Your task to perform on an android device: check out phone information Image 0: 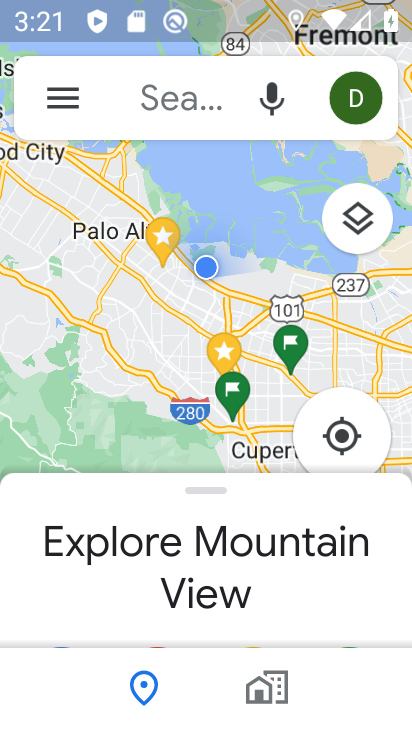
Step 0: press home button
Your task to perform on an android device: check out phone information Image 1: 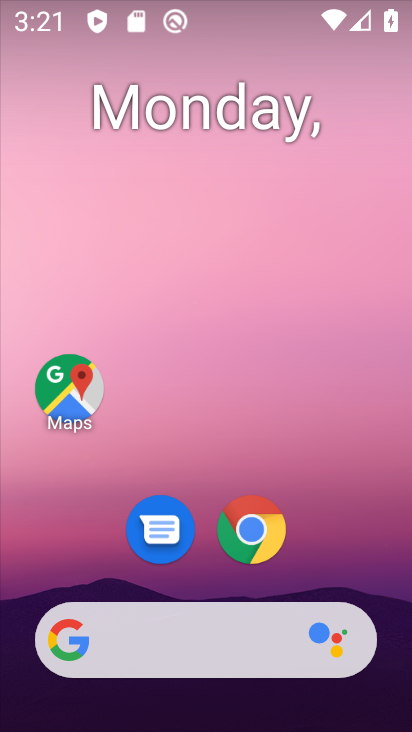
Step 1: drag from (200, 574) to (347, 8)
Your task to perform on an android device: check out phone information Image 2: 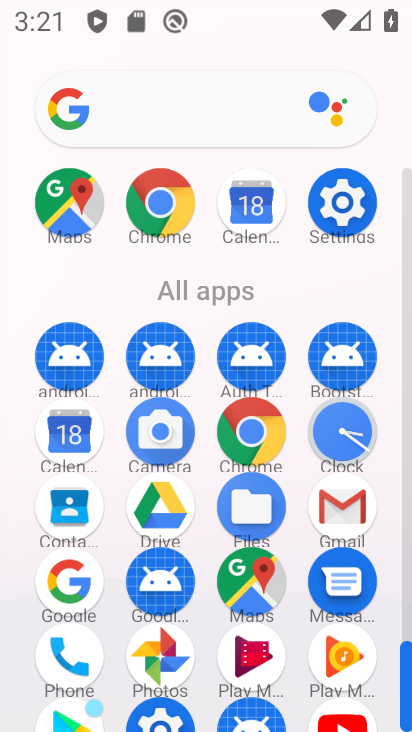
Step 2: click (339, 219)
Your task to perform on an android device: check out phone information Image 3: 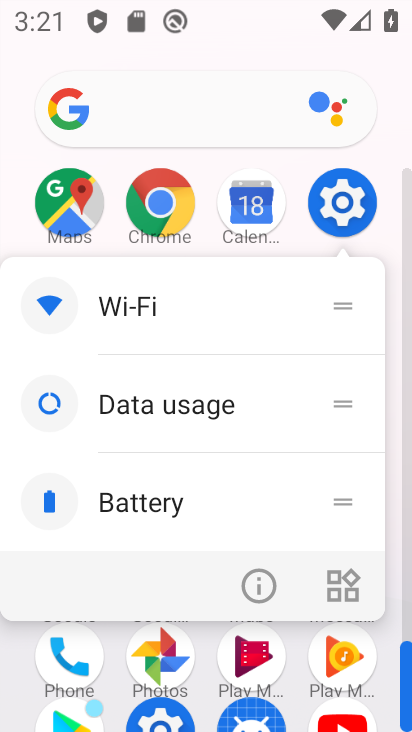
Step 3: click (341, 203)
Your task to perform on an android device: check out phone information Image 4: 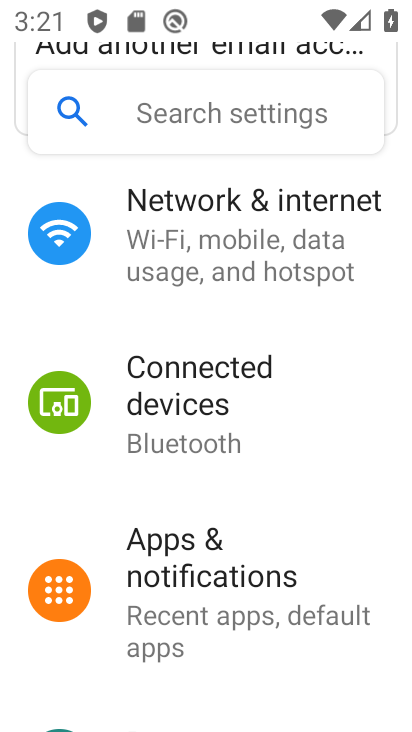
Step 4: drag from (163, 547) to (269, 47)
Your task to perform on an android device: check out phone information Image 5: 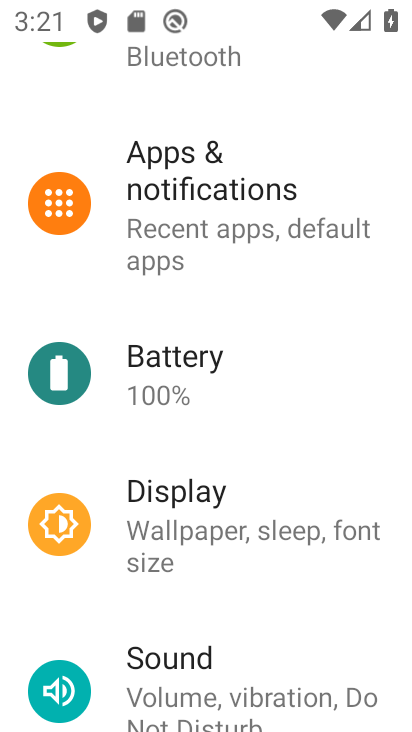
Step 5: drag from (206, 654) to (289, 173)
Your task to perform on an android device: check out phone information Image 6: 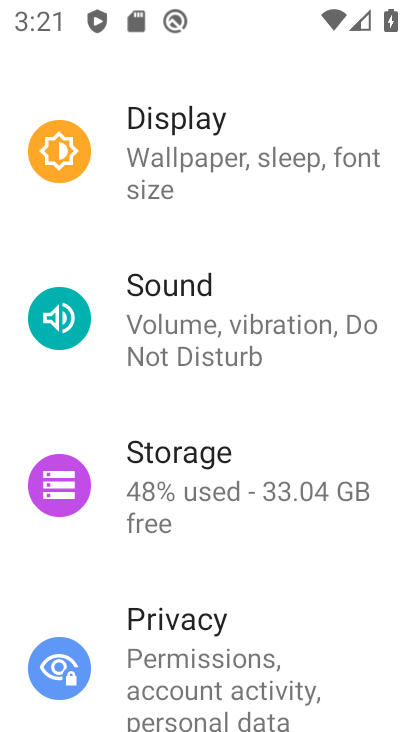
Step 6: drag from (203, 642) to (279, 7)
Your task to perform on an android device: check out phone information Image 7: 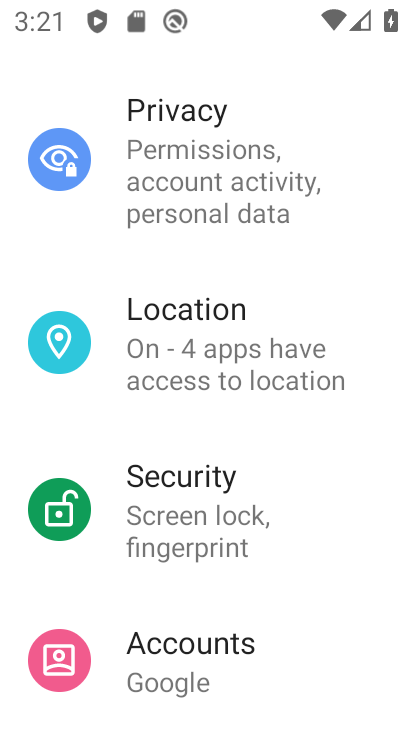
Step 7: drag from (208, 635) to (311, 0)
Your task to perform on an android device: check out phone information Image 8: 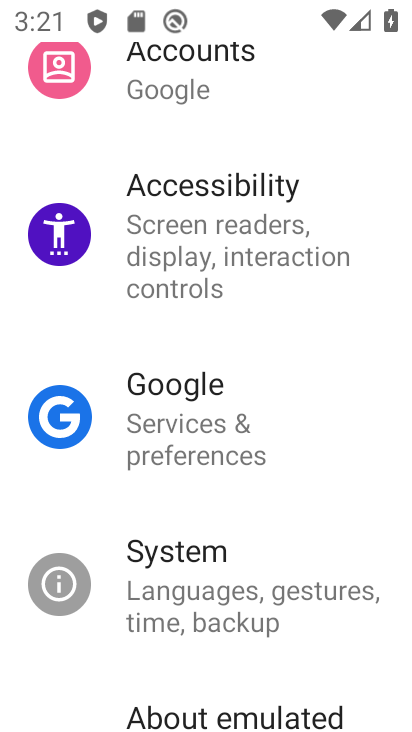
Step 8: drag from (206, 651) to (294, 17)
Your task to perform on an android device: check out phone information Image 9: 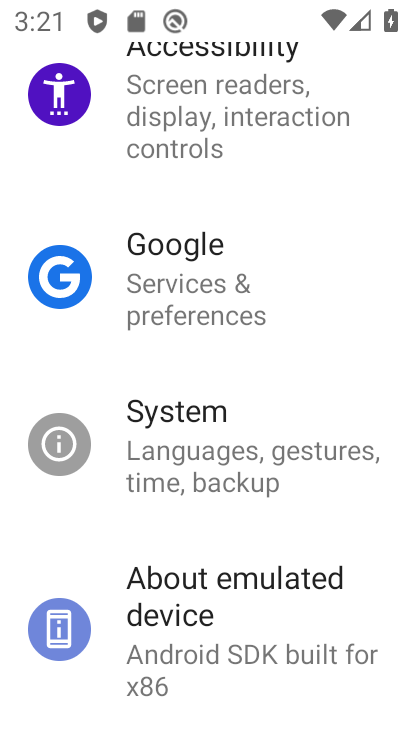
Step 9: click (194, 644)
Your task to perform on an android device: check out phone information Image 10: 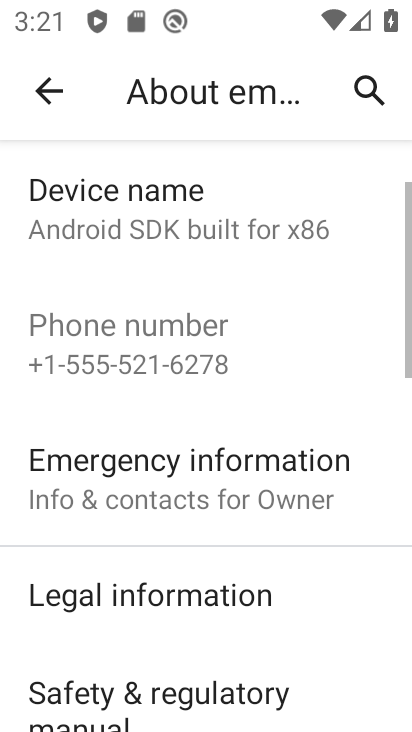
Step 10: task complete